Your task to perform on an android device: Show me recent news Image 0: 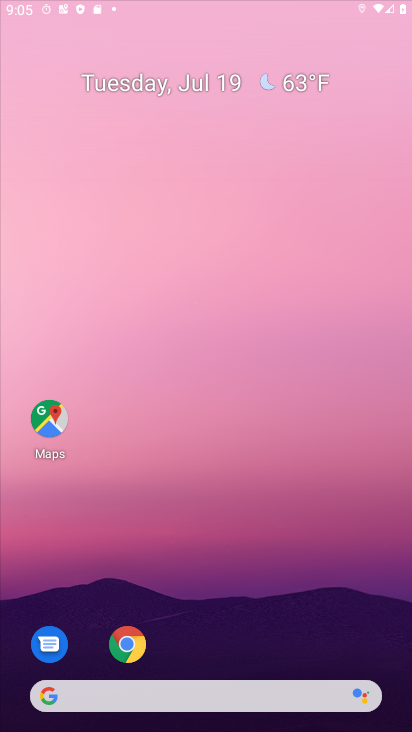
Step 0: drag from (181, 617) to (173, 246)
Your task to perform on an android device: Show me recent news Image 1: 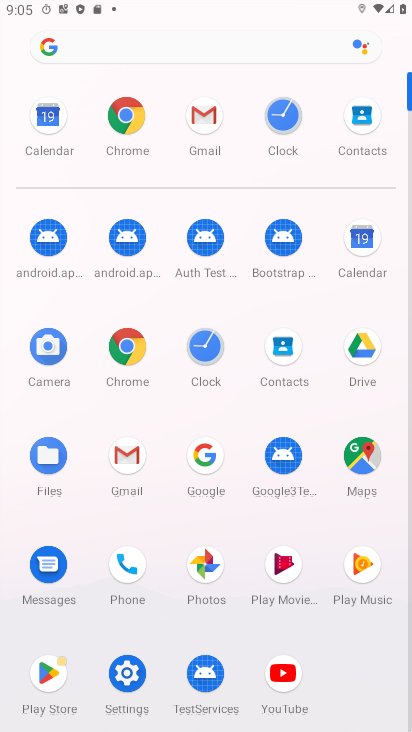
Step 1: drag from (196, 585) to (200, 280)
Your task to perform on an android device: Show me recent news Image 2: 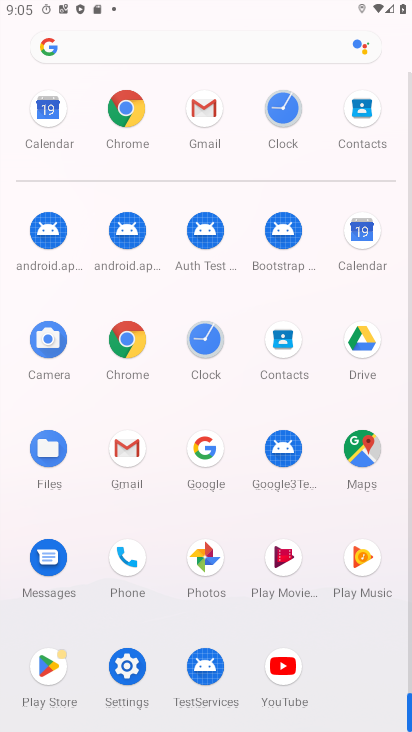
Step 2: click (134, 114)
Your task to perform on an android device: Show me recent news Image 3: 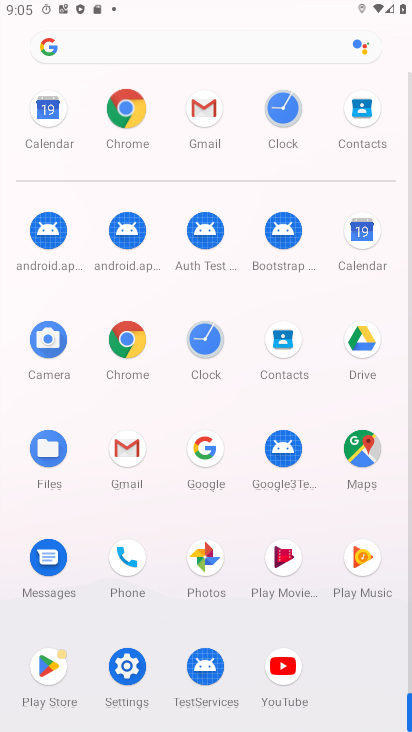
Step 3: click (128, 114)
Your task to perform on an android device: Show me recent news Image 4: 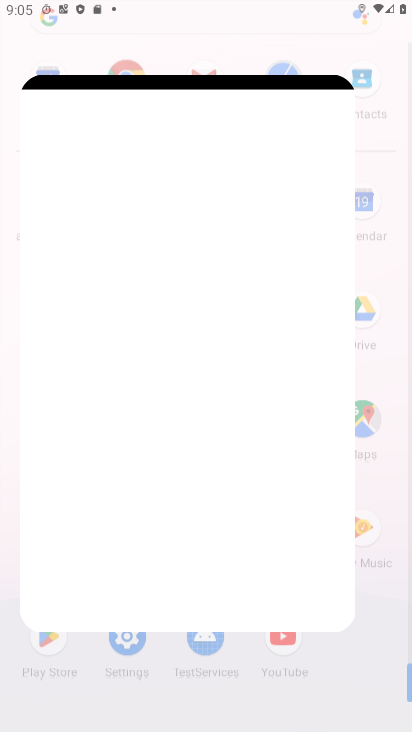
Step 4: click (128, 114)
Your task to perform on an android device: Show me recent news Image 5: 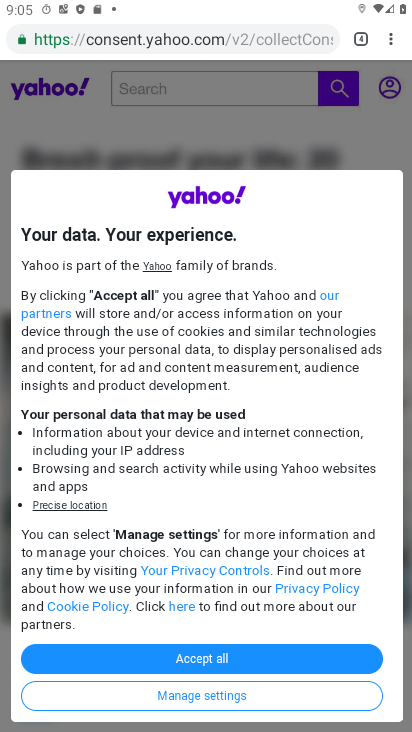
Step 5: task complete